Your task to perform on an android device: see tabs open on other devices in the chrome app Image 0: 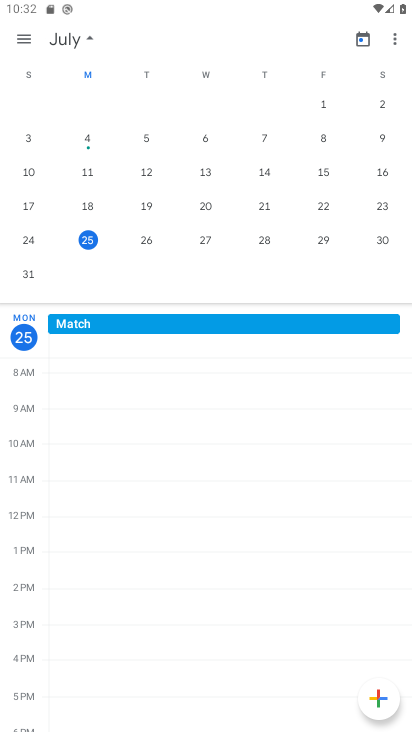
Step 0: press home button
Your task to perform on an android device: see tabs open on other devices in the chrome app Image 1: 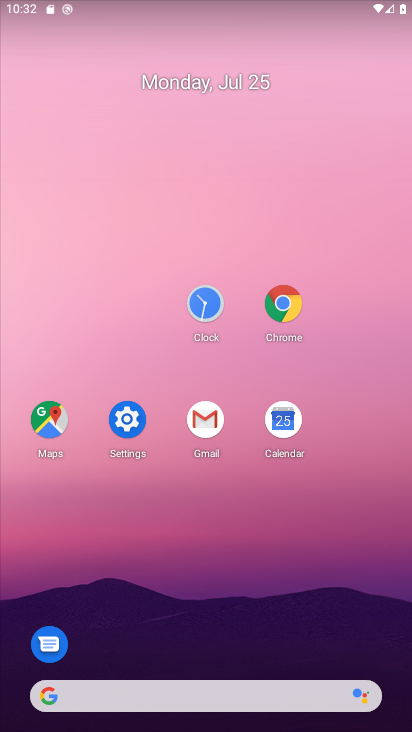
Step 1: click (281, 311)
Your task to perform on an android device: see tabs open on other devices in the chrome app Image 2: 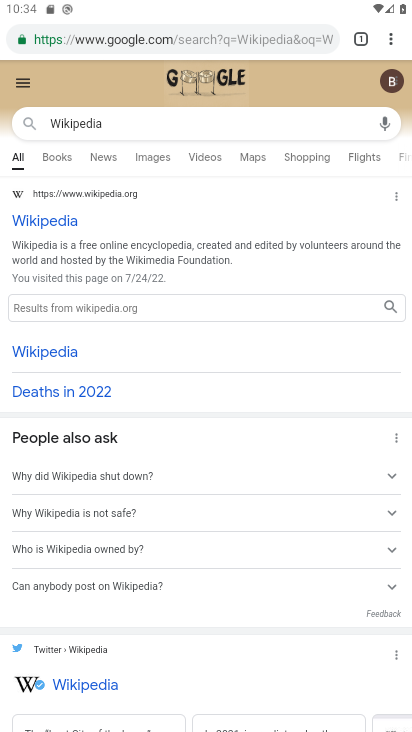
Step 2: click (392, 34)
Your task to perform on an android device: see tabs open on other devices in the chrome app Image 3: 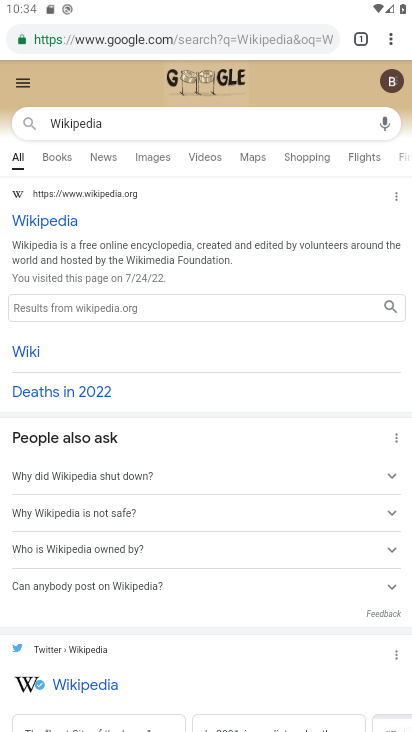
Step 3: click (394, 32)
Your task to perform on an android device: see tabs open on other devices in the chrome app Image 4: 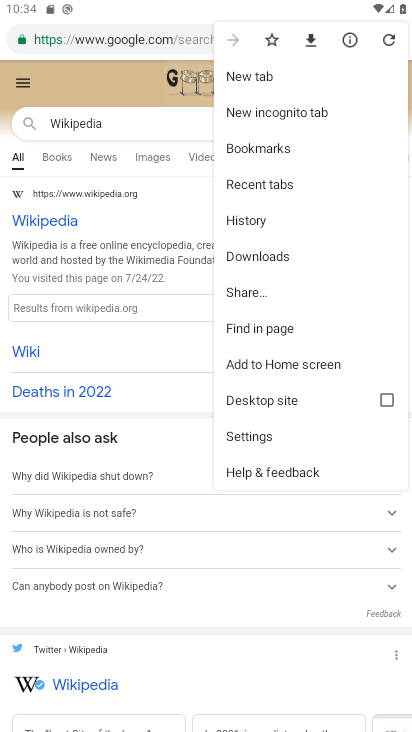
Step 4: click (258, 183)
Your task to perform on an android device: see tabs open on other devices in the chrome app Image 5: 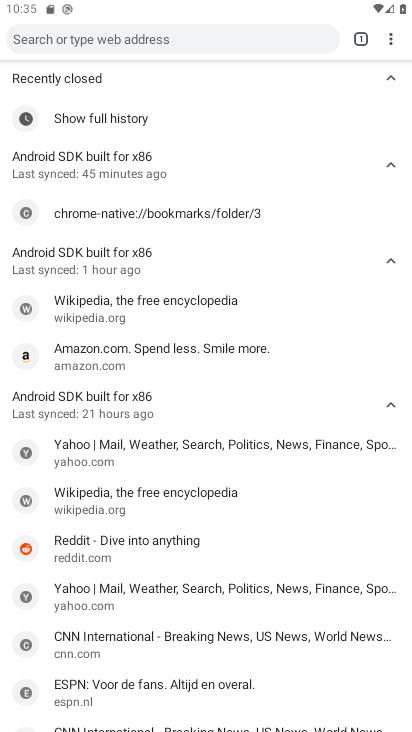
Step 5: task complete